Your task to perform on an android device: Open sound settings Image 0: 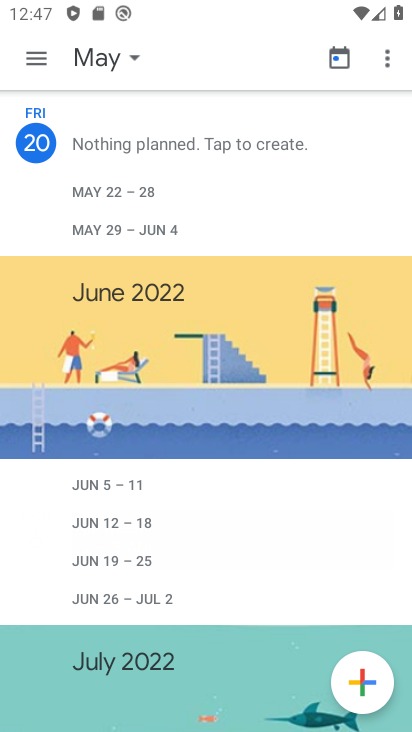
Step 0: press home button
Your task to perform on an android device: Open sound settings Image 1: 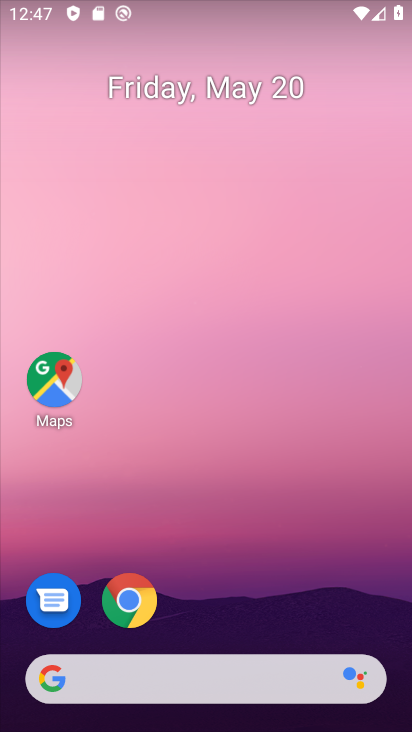
Step 1: drag from (209, 675) to (173, 187)
Your task to perform on an android device: Open sound settings Image 2: 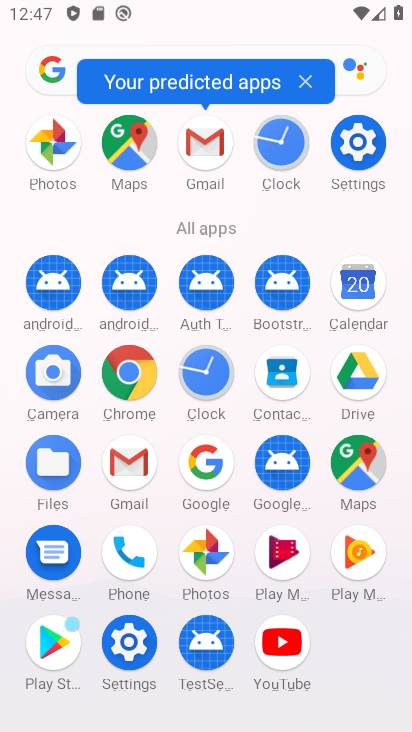
Step 2: click (137, 641)
Your task to perform on an android device: Open sound settings Image 3: 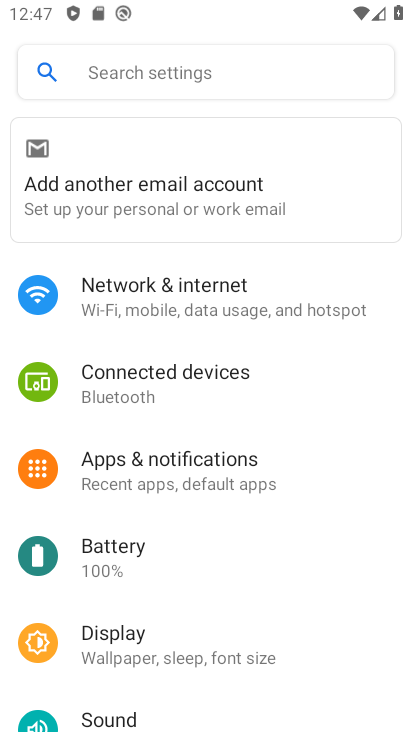
Step 3: click (102, 709)
Your task to perform on an android device: Open sound settings Image 4: 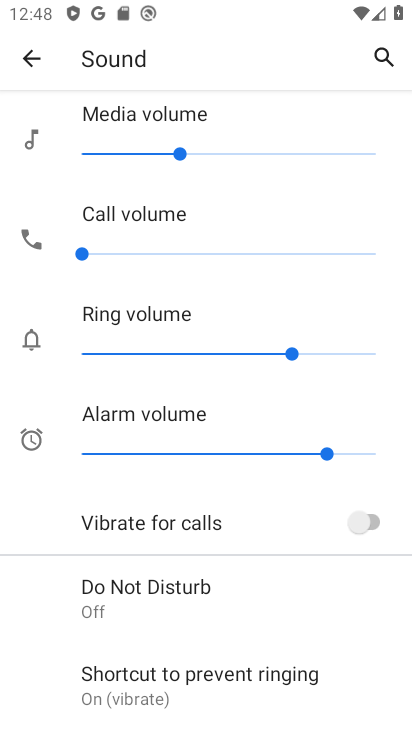
Step 4: task complete